Your task to perform on an android device: Search for pizza restaurants on Maps Image 0: 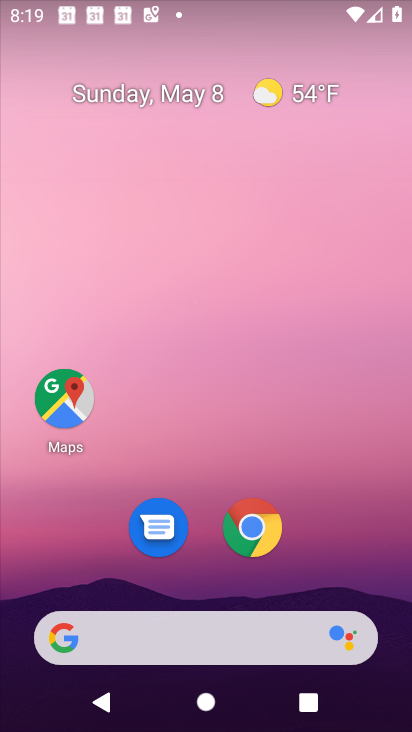
Step 0: drag from (315, 585) to (290, 50)
Your task to perform on an android device: Search for pizza restaurants on Maps Image 1: 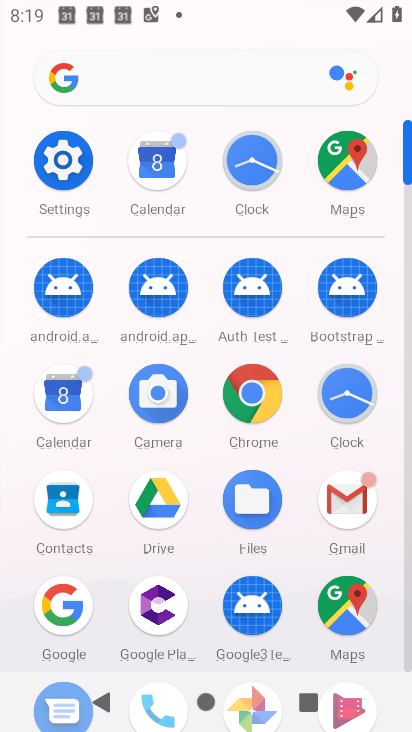
Step 1: click (350, 174)
Your task to perform on an android device: Search for pizza restaurants on Maps Image 2: 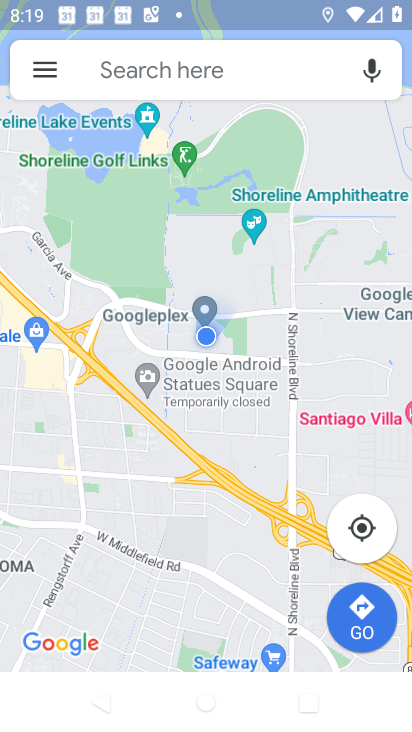
Step 2: click (198, 60)
Your task to perform on an android device: Search for pizza restaurants on Maps Image 3: 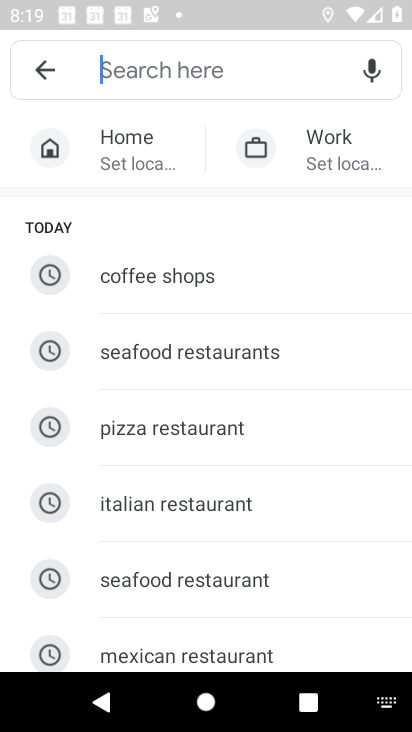
Step 3: type "pizza restaurants "
Your task to perform on an android device: Search for pizza restaurants on Maps Image 4: 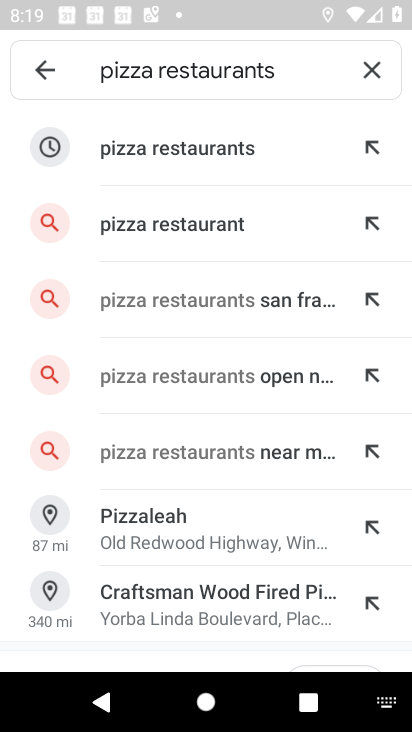
Step 4: click (180, 217)
Your task to perform on an android device: Search for pizza restaurants on Maps Image 5: 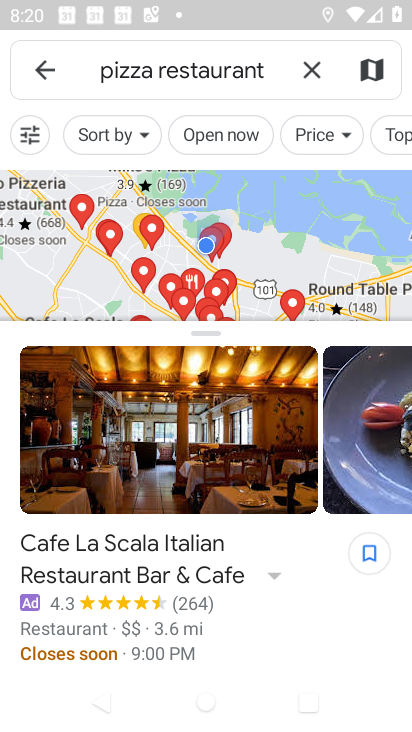
Step 5: task complete